Your task to perform on an android device: turn off javascript in the chrome app Image 0: 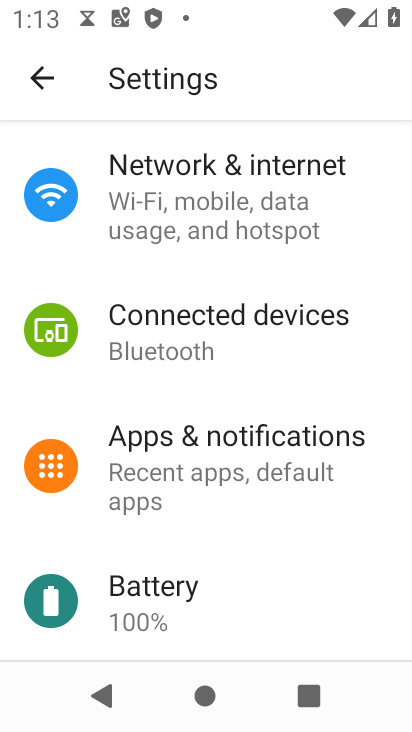
Step 0: press home button
Your task to perform on an android device: turn off javascript in the chrome app Image 1: 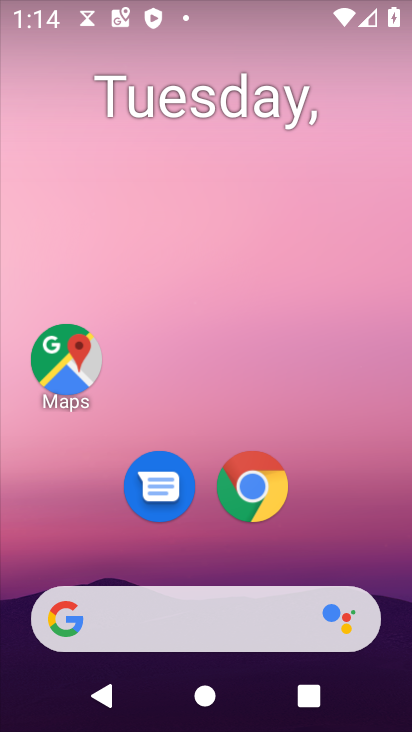
Step 1: click (262, 492)
Your task to perform on an android device: turn off javascript in the chrome app Image 2: 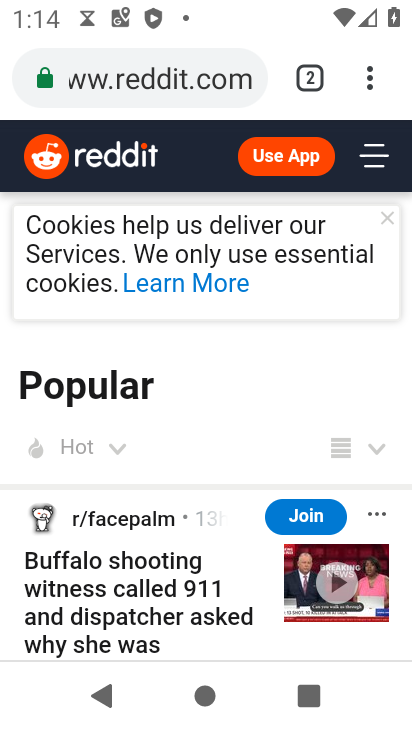
Step 2: click (358, 81)
Your task to perform on an android device: turn off javascript in the chrome app Image 3: 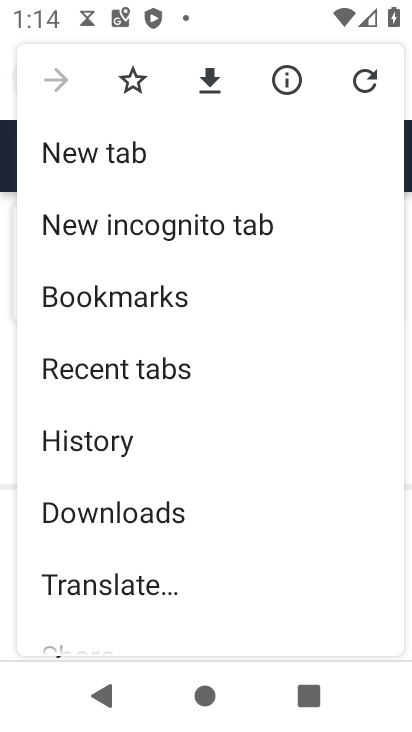
Step 3: drag from (238, 615) to (190, 150)
Your task to perform on an android device: turn off javascript in the chrome app Image 4: 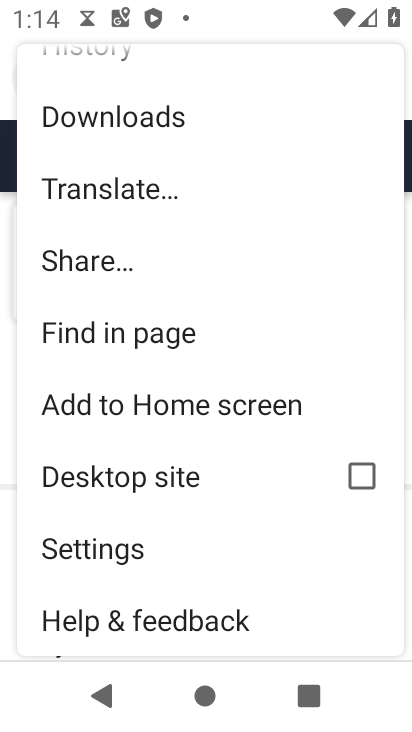
Step 4: click (237, 534)
Your task to perform on an android device: turn off javascript in the chrome app Image 5: 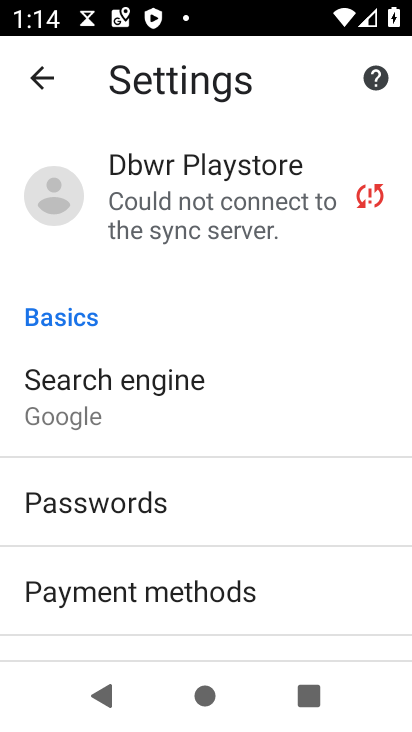
Step 5: drag from (254, 615) to (221, 289)
Your task to perform on an android device: turn off javascript in the chrome app Image 6: 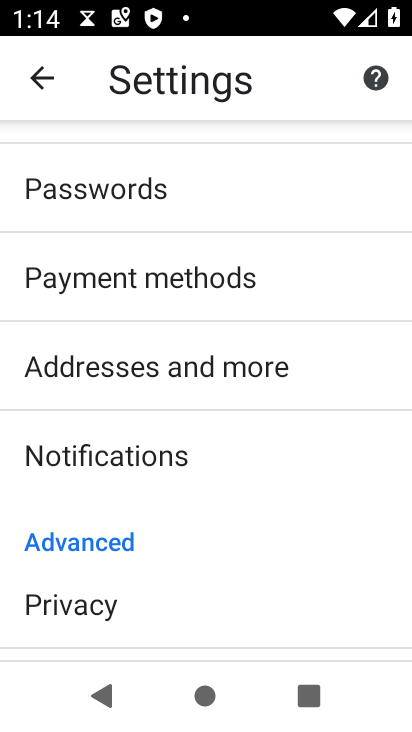
Step 6: drag from (287, 549) to (254, 207)
Your task to perform on an android device: turn off javascript in the chrome app Image 7: 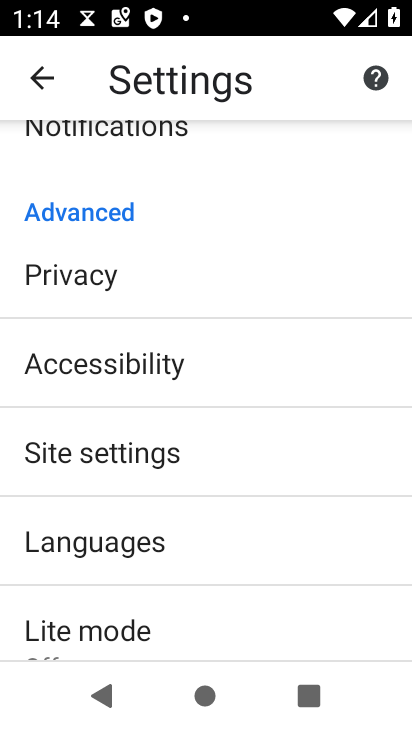
Step 7: click (245, 467)
Your task to perform on an android device: turn off javascript in the chrome app Image 8: 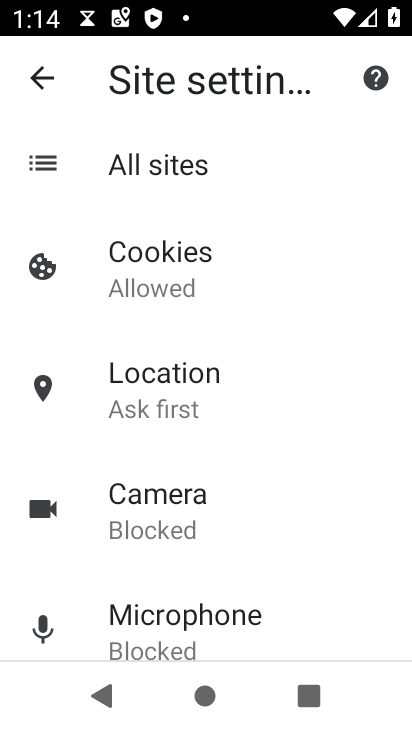
Step 8: drag from (280, 630) to (233, 192)
Your task to perform on an android device: turn off javascript in the chrome app Image 9: 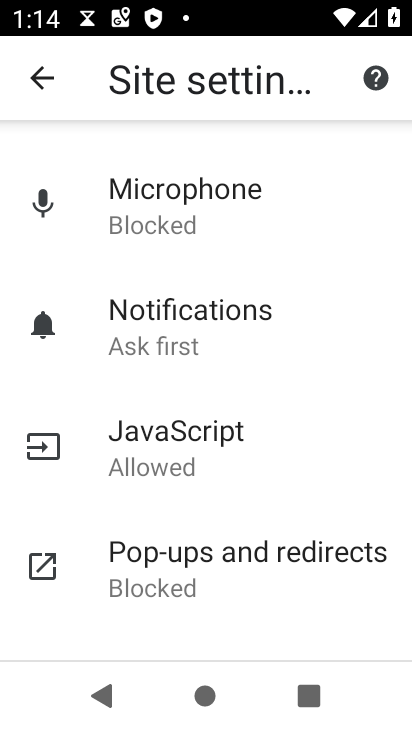
Step 9: click (269, 464)
Your task to perform on an android device: turn off javascript in the chrome app Image 10: 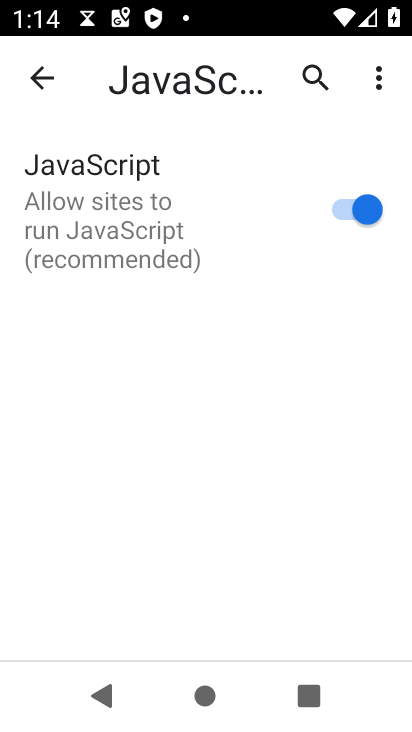
Step 10: click (331, 218)
Your task to perform on an android device: turn off javascript in the chrome app Image 11: 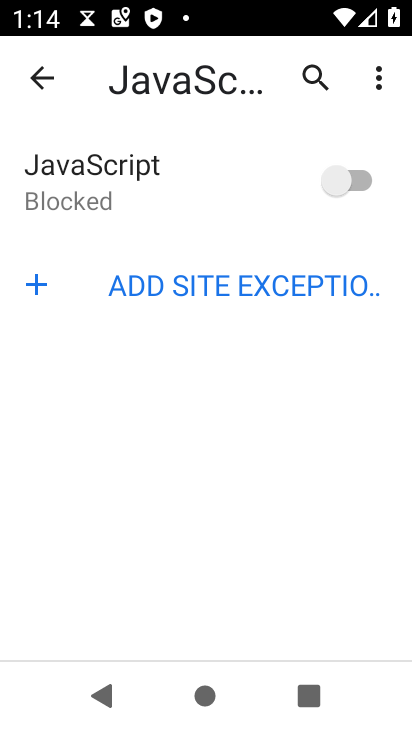
Step 11: task complete